Your task to perform on an android device: find snoozed emails in the gmail app Image 0: 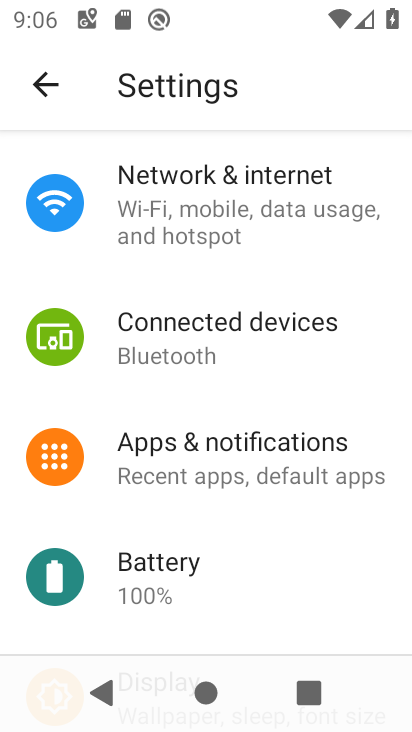
Step 0: press home button
Your task to perform on an android device: find snoozed emails in the gmail app Image 1: 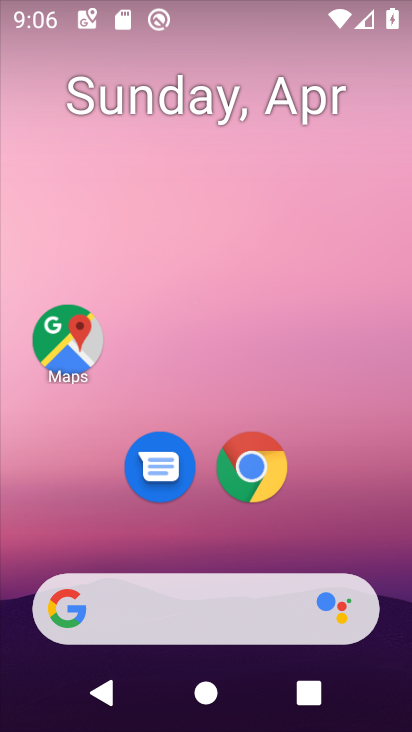
Step 1: drag from (305, 537) to (351, 81)
Your task to perform on an android device: find snoozed emails in the gmail app Image 2: 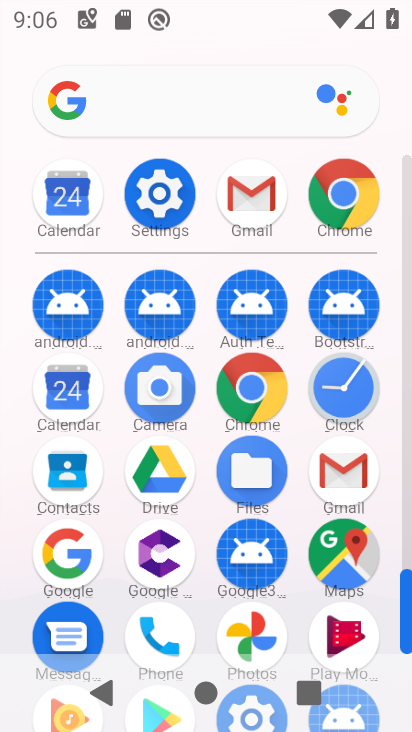
Step 2: click (242, 196)
Your task to perform on an android device: find snoozed emails in the gmail app Image 3: 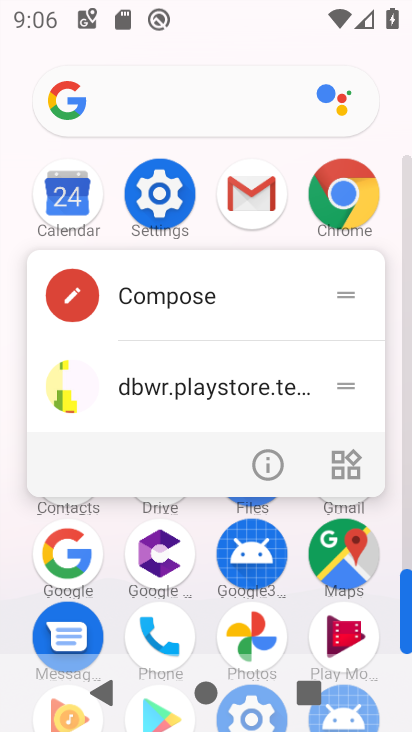
Step 3: click (245, 196)
Your task to perform on an android device: find snoozed emails in the gmail app Image 4: 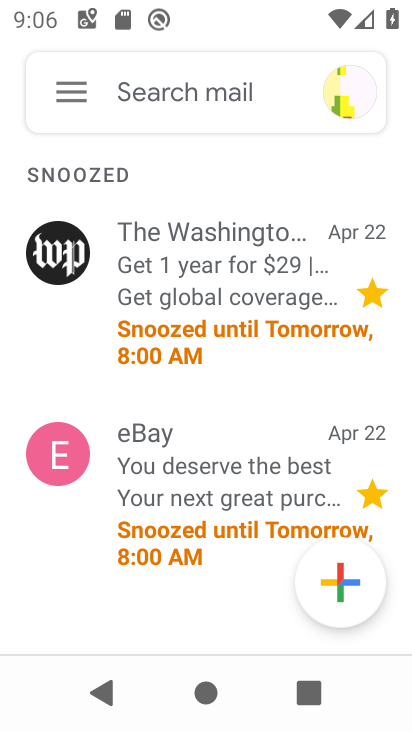
Step 4: task complete